Your task to perform on an android device: choose inbox layout in the gmail app Image 0: 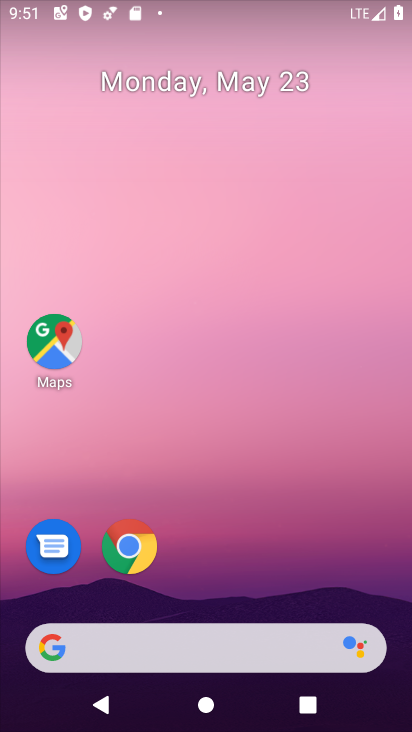
Step 0: drag from (391, 615) to (326, 183)
Your task to perform on an android device: choose inbox layout in the gmail app Image 1: 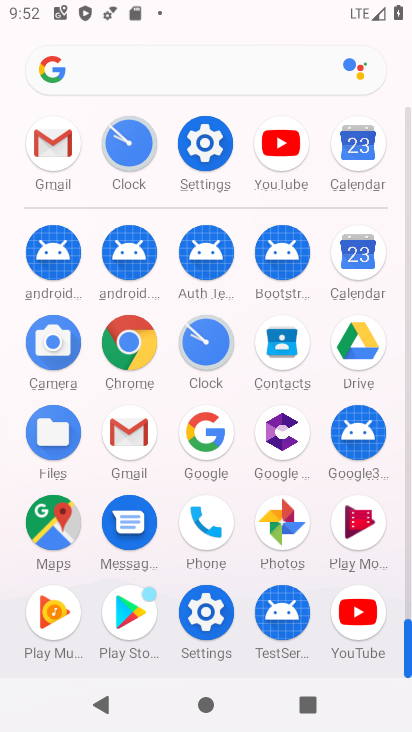
Step 1: click (128, 428)
Your task to perform on an android device: choose inbox layout in the gmail app Image 2: 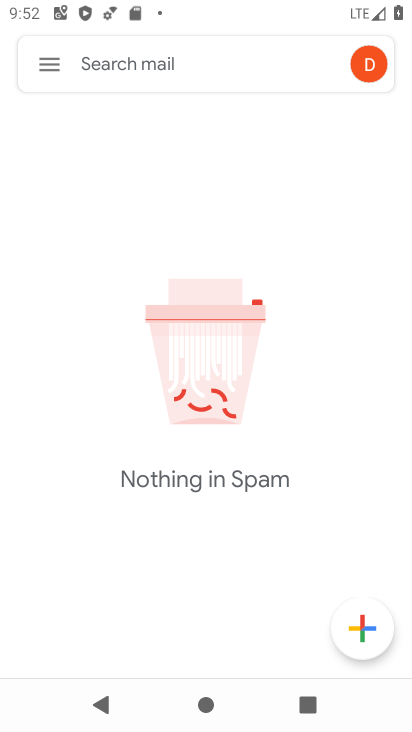
Step 2: click (46, 63)
Your task to perform on an android device: choose inbox layout in the gmail app Image 3: 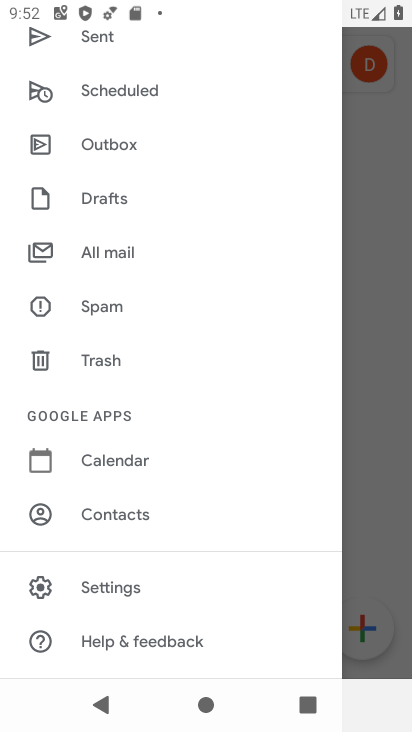
Step 3: click (114, 596)
Your task to perform on an android device: choose inbox layout in the gmail app Image 4: 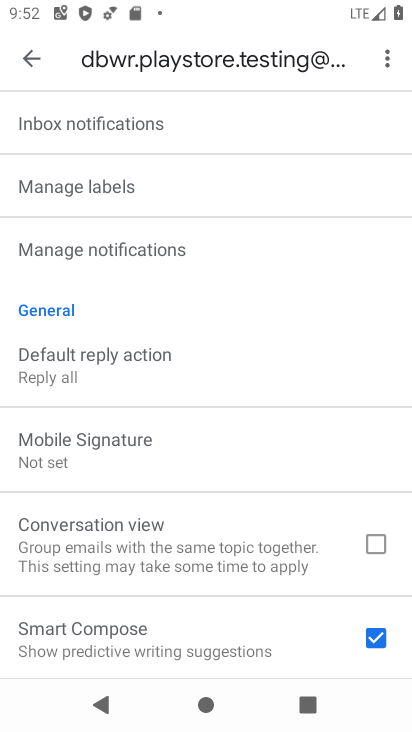
Step 4: drag from (265, 320) to (260, 546)
Your task to perform on an android device: choose inbox layout in the gmail app Image 5: 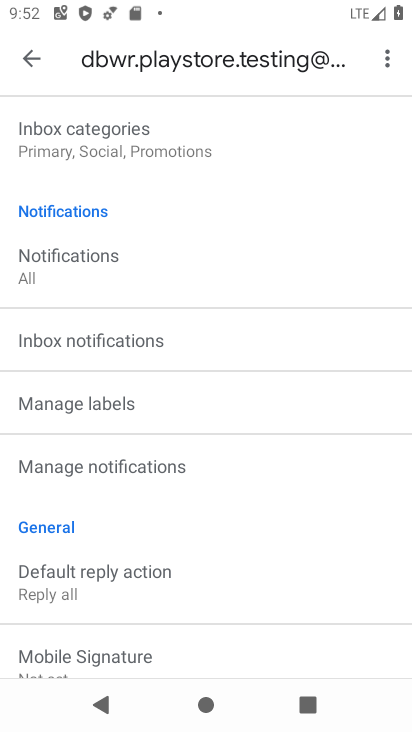
Step 5: drag from (150, 125) to (134, 369)
Your task to perform on an android device: choose inbox layout in the gmail app Image 6: 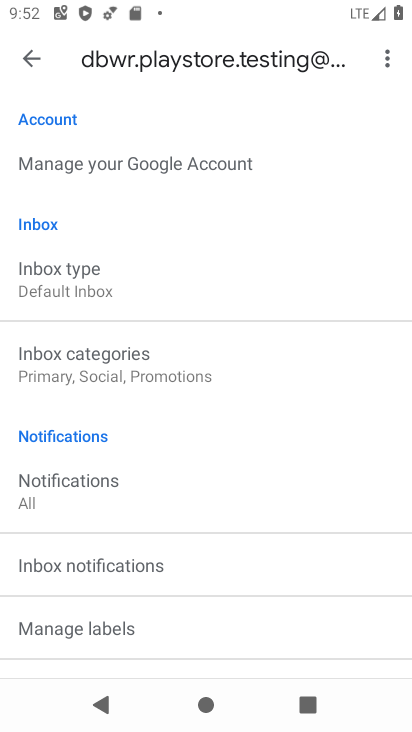
Step 6: click (67, 284)
Your task to perform on an android device: choose inbox layout in the gmail app Image 7: 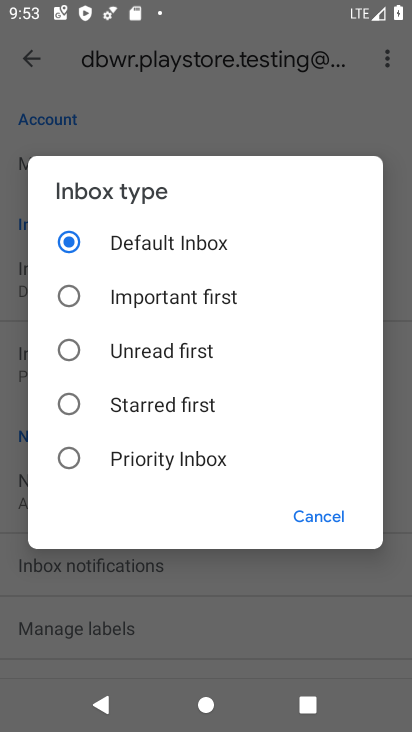
Step 7: click (62, 302)
Your task to perform on an android device: choose inbox layout in the gmail app Image 8: 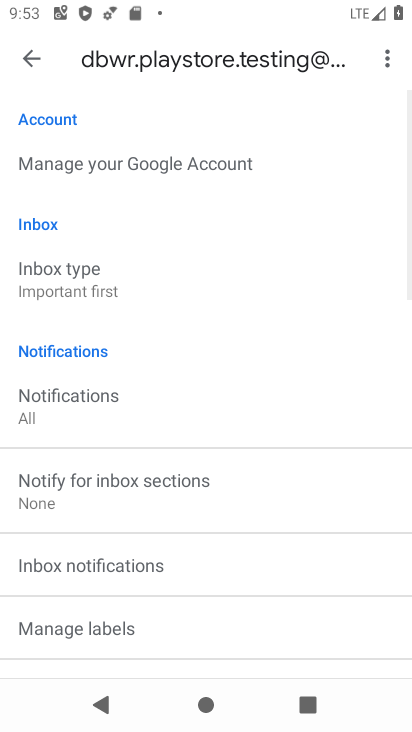
Step 8: task complete